Your task to perform on an android device: turn off location Image 0: 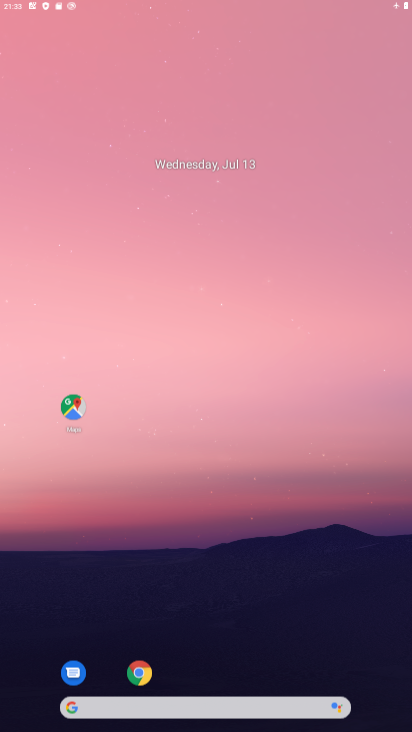
Step 0: drag from (215, 592) to (322, 178)
Your task to perform on an android device: turn off location Image 1: 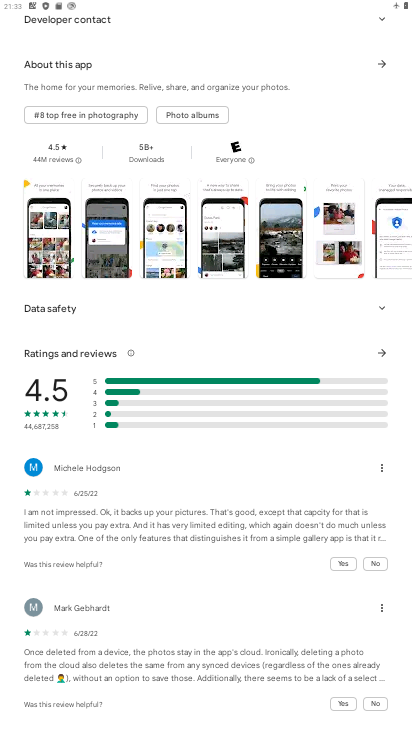
Step 1: press home button
Your task to perform on an android device: turn off location Image 2: 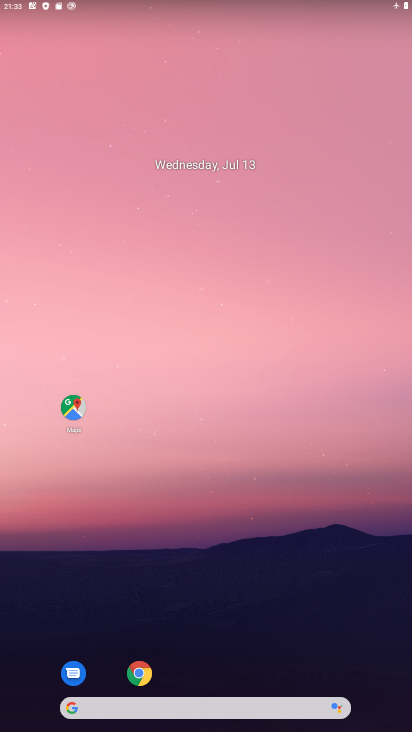
Step 2: drag from (248, 363) to (248, 192)
Your task to perform on an android device: turn off location Image 3: 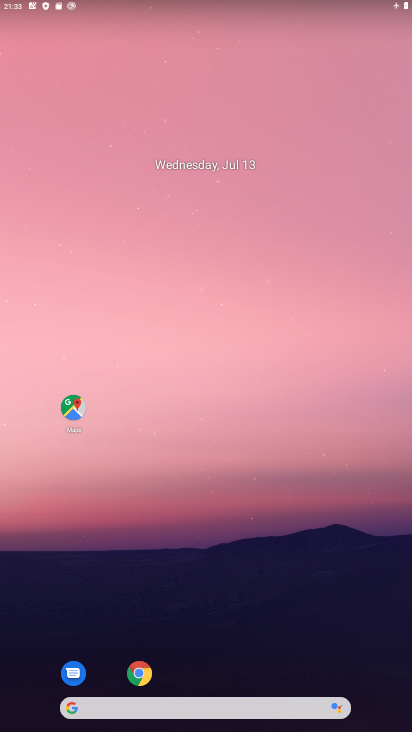
Step 3: drag from (209, 609) to (228, 92)
Your task to perform on an android device: turn off location Image 4: 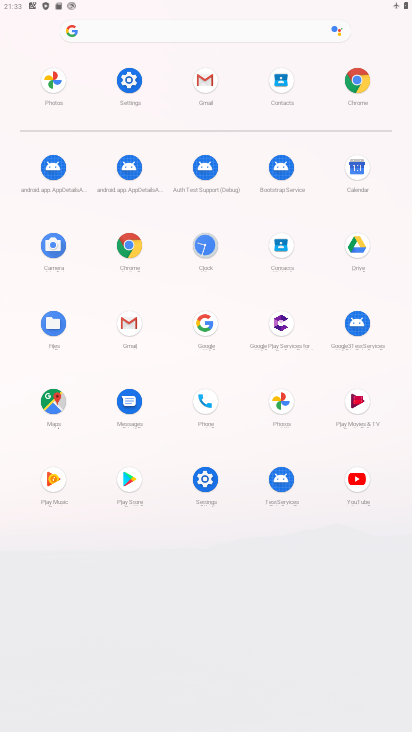
Step 4: click (119, 76)
Your task to perform on an android device: turn off location Image 5: 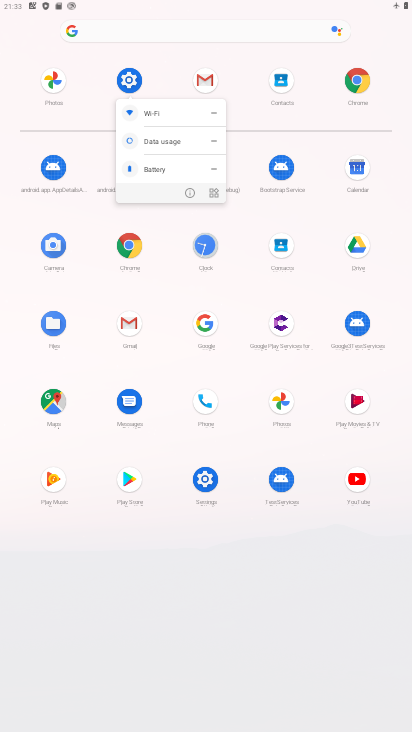
Step 5: click (192, 187)
Your task to perform on an android device: turn off location Image 6: 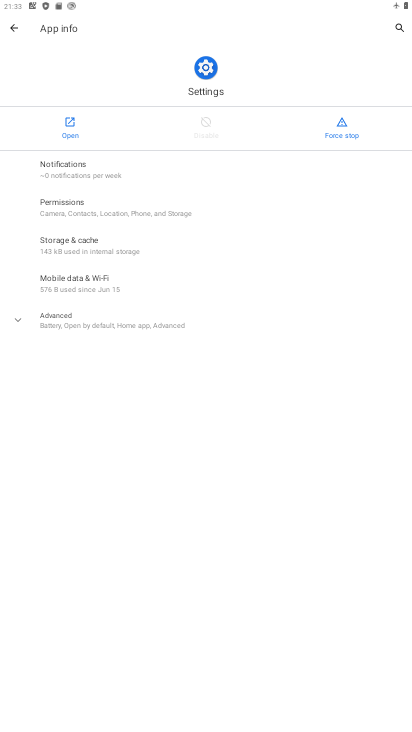
Step 6: click (68, 121)
Your task to perform on an android device: turn off location Image 7: 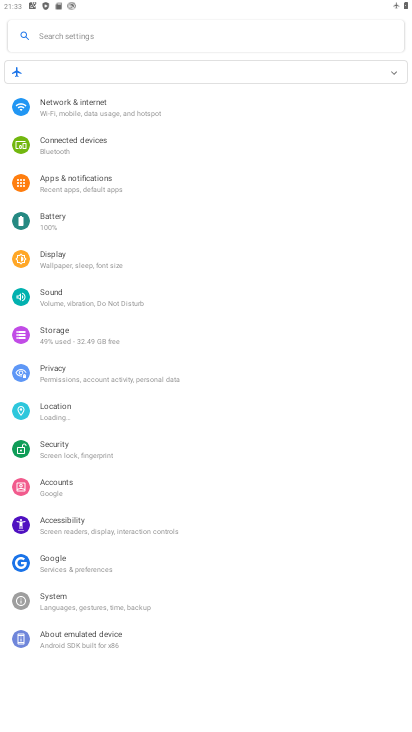
Step 7: click (80, 38)
Your task to perform on an android device: turn off location Image 8: 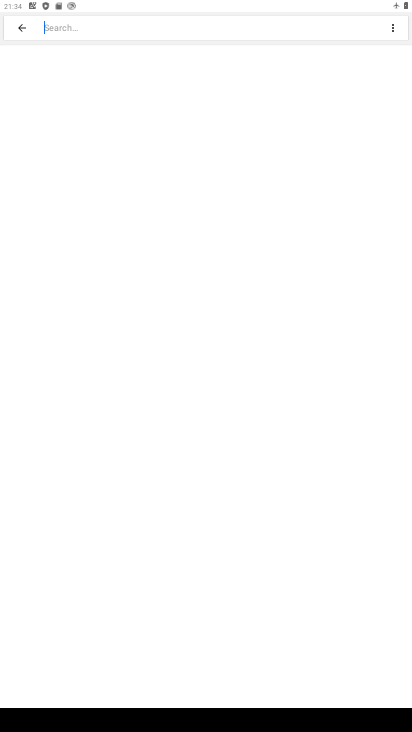
Step 8: click (21, 27)
Your task to perform on an android device: turn off location Image 9: 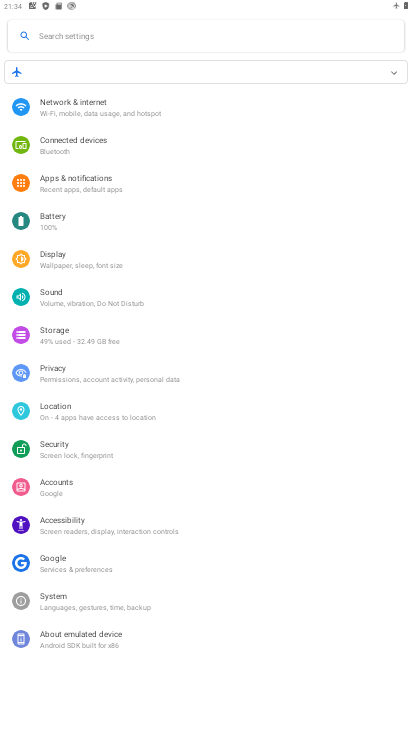
Step 9: click (79, 408)
Your task to perform on an android device: turn off location Image 10: 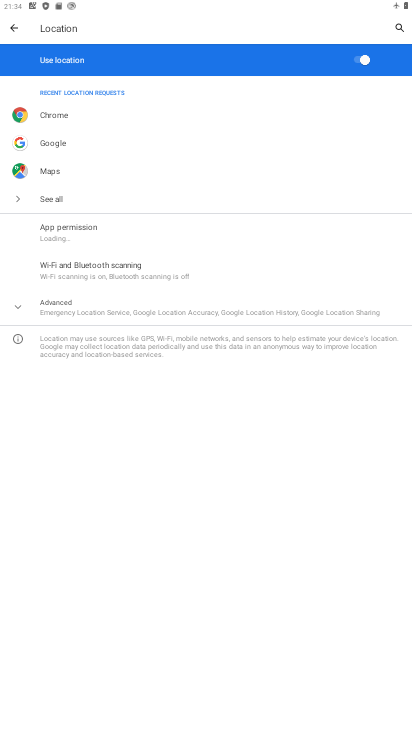
Step 10: click (360, 55)
Your task to perform on an android device: turn off location Image 11: 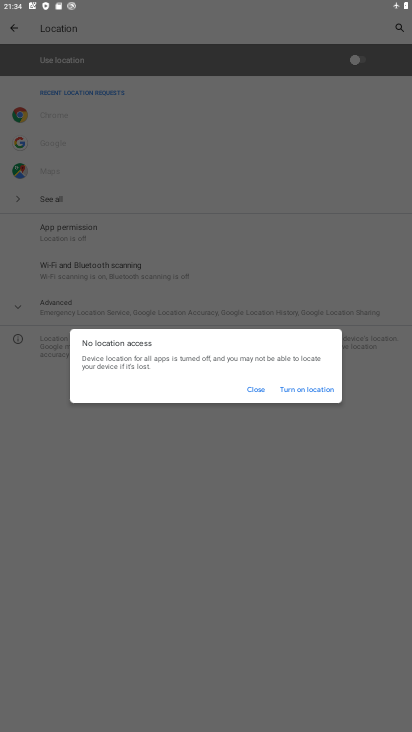
Step 11: task complete